Your task to perform on an android device: turn on translation in the chrome app Image 0: 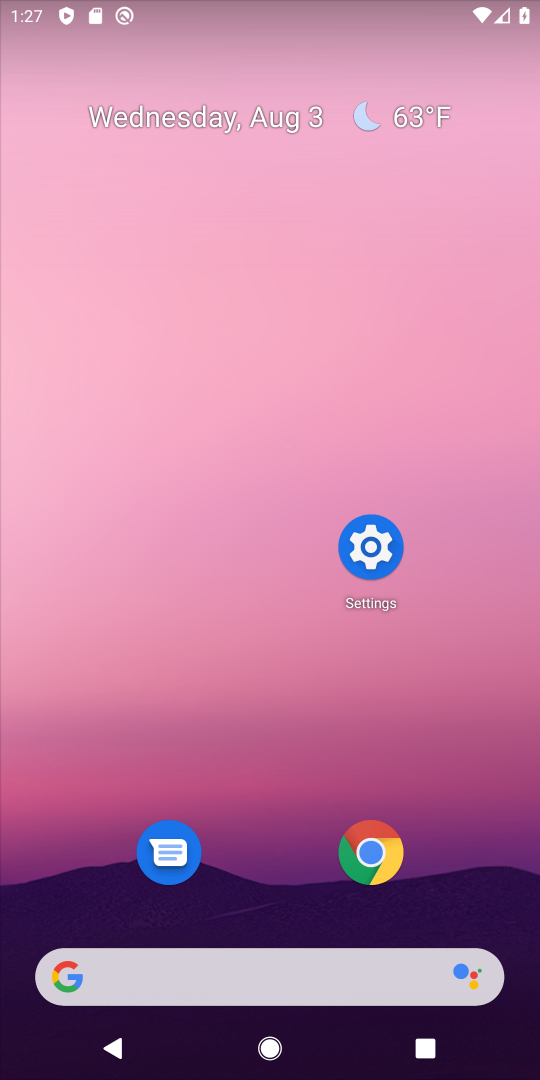
Step 0: click (370, 850)
Your task to perform on an android device: turn on translation in the chrome app Image 1: 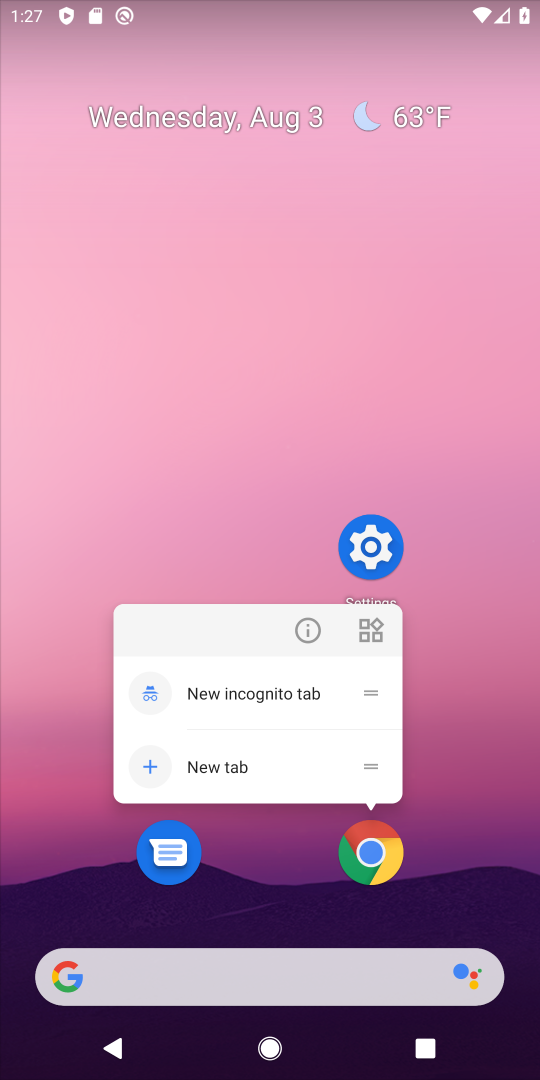
Step 1: click (370, 851)
Your task to perform on an android device: turn on translation in the chrome app Image 2: 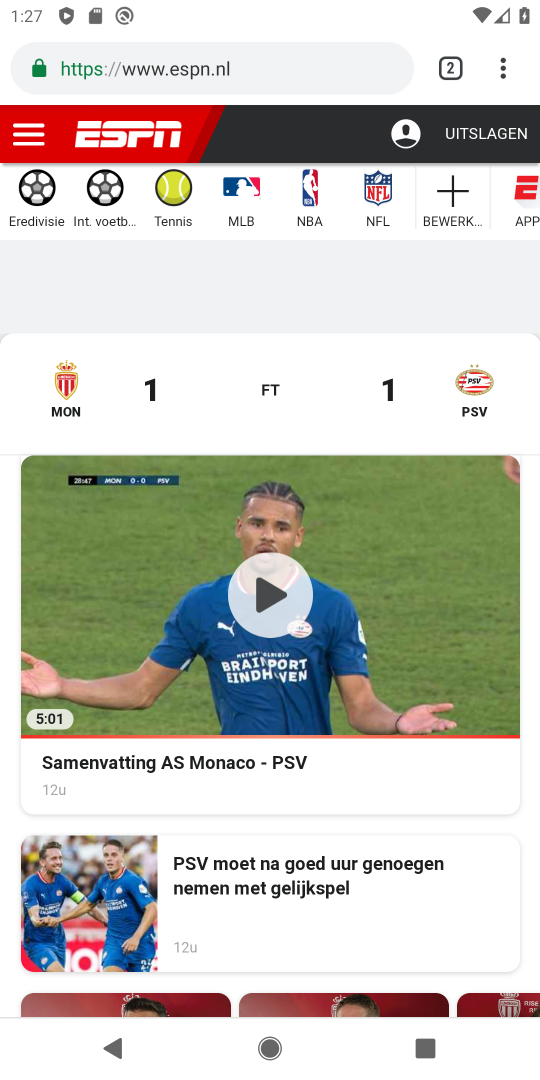
Step 2: drag from (509, 75) to (349, 887)
Your task to perform on an android device: turn on translation in the chrome app Image 3: 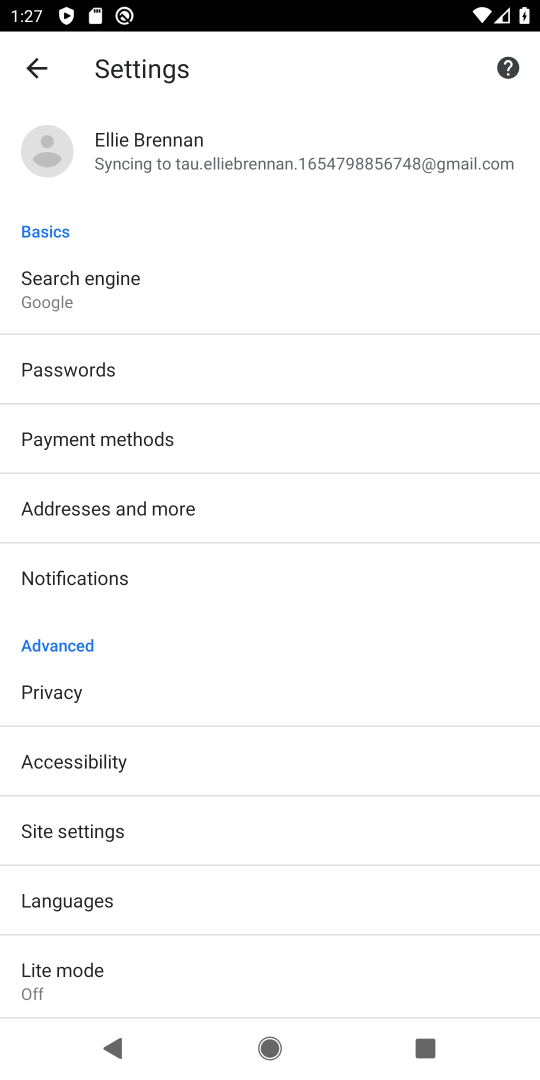
Step 3: drag from (203, 869) to (274, 616)
Your task to perform on an android device: turn on translation in the chrome app Image 4: 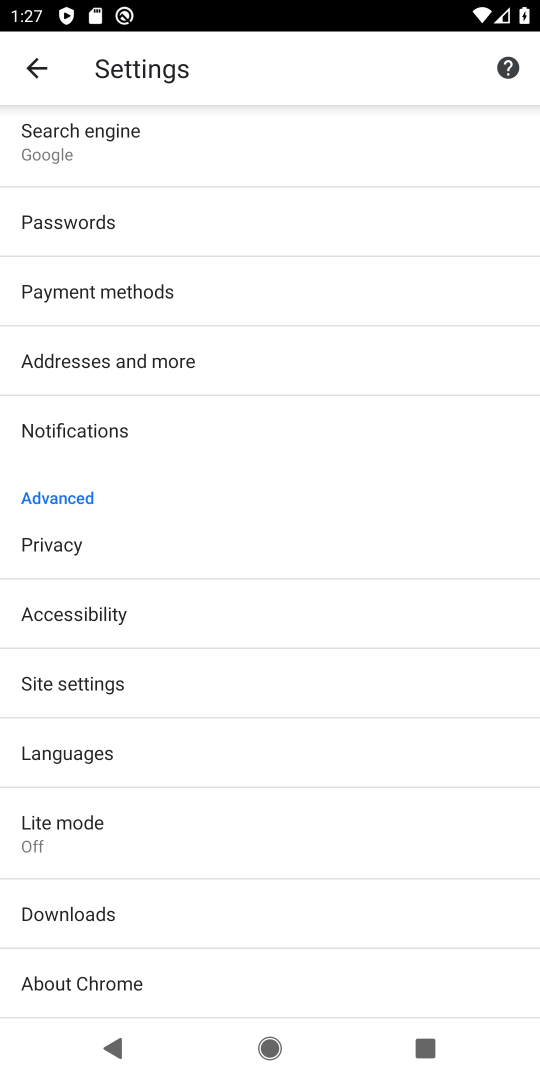
Step 4: click (67, 749)
Your task to perform on an android device: turn on translation in the chrome app Image 5: 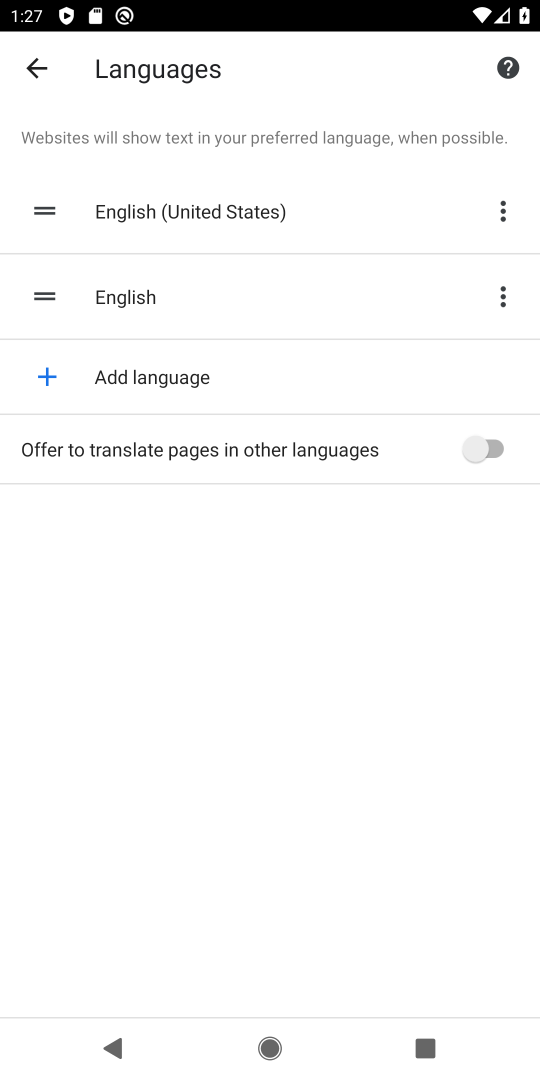
Step 5: click (497, 447)
Your task to perform on an android device: turn on translation in the chrome app Image 6: 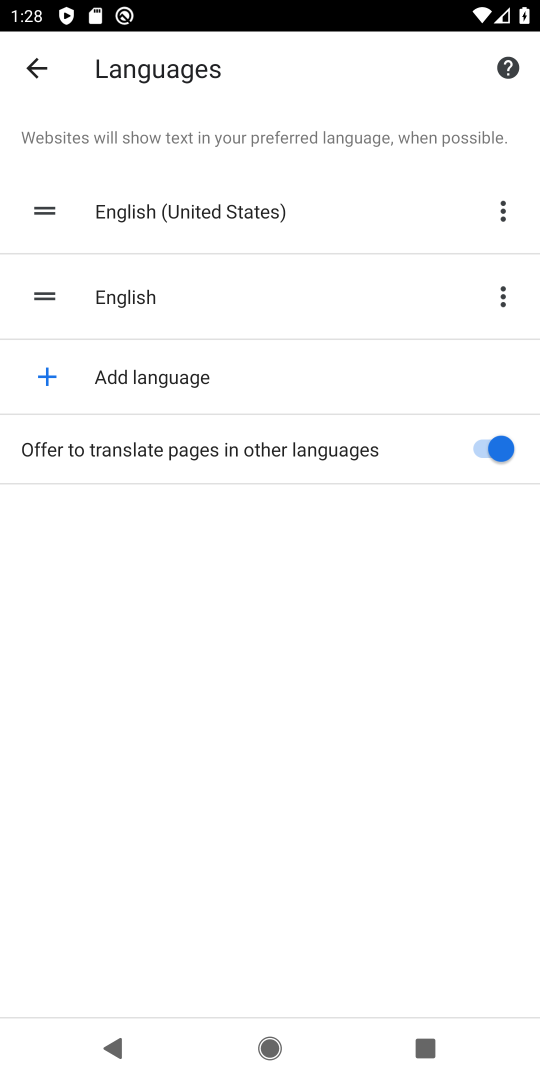
Step 6: task complete